Your task to perform on an android device: Open the map Image 0: 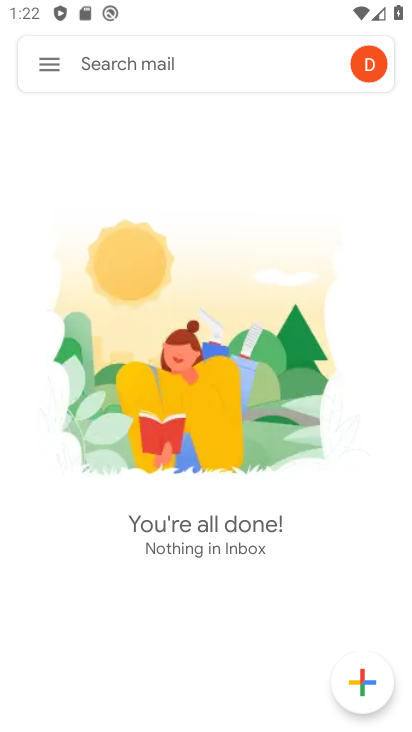
Step 0: press home button
Your task to perform on an android device: Open the map Image 1: 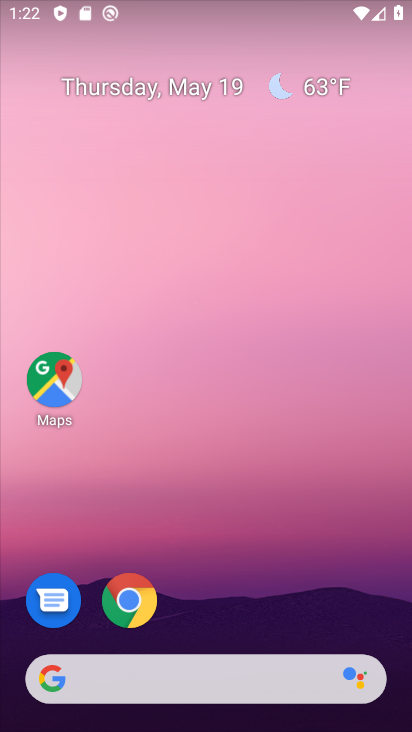
Step 1: click (60, 403)
Your task to perform on an android device: Open the map Image 2: 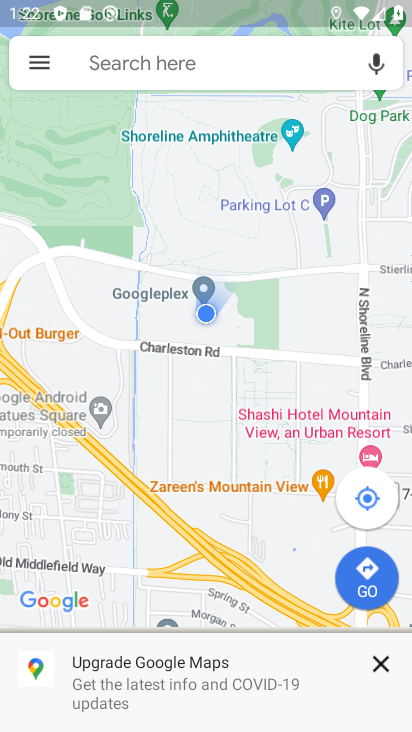
Step 2: task complete